Your task to perform on an android device: Open battery settings Image 0: 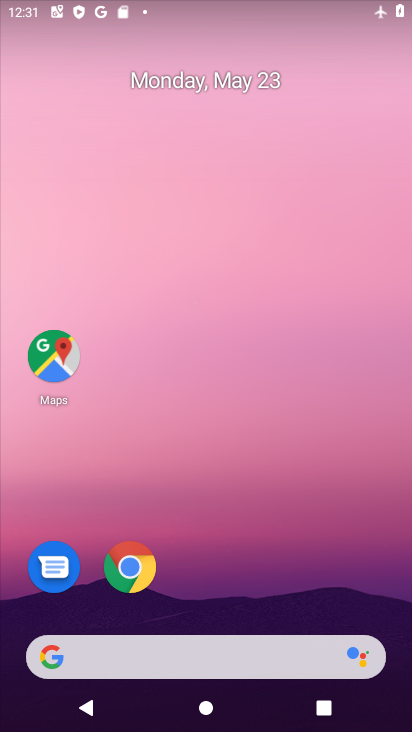
Step 0: drag from (263, 598) to (237, 21)
Your task to perform on an android device: Open battery settings Image 1: 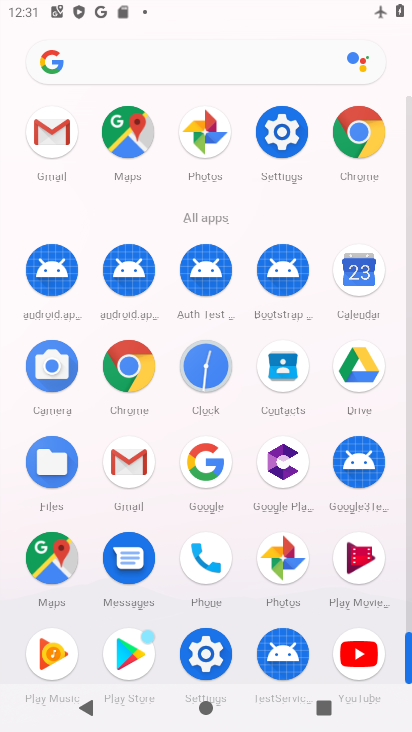
Step 1: click (292, 120)
Your task to perform on an android device: Open battery settings Image 2: 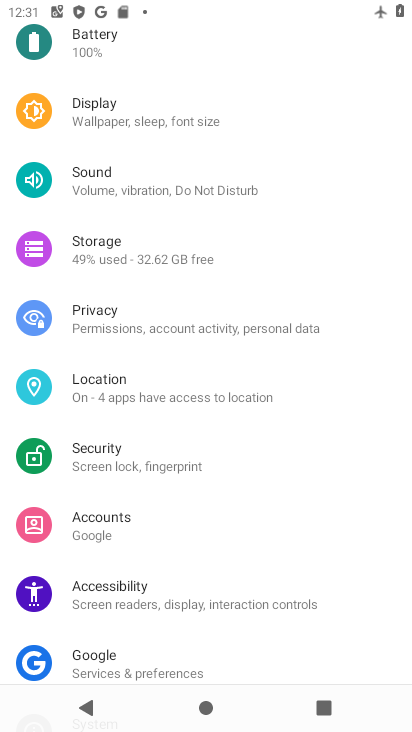
Step 2: click (189, 50)
Your task to perform on an android device: Open battery settings Image 3: 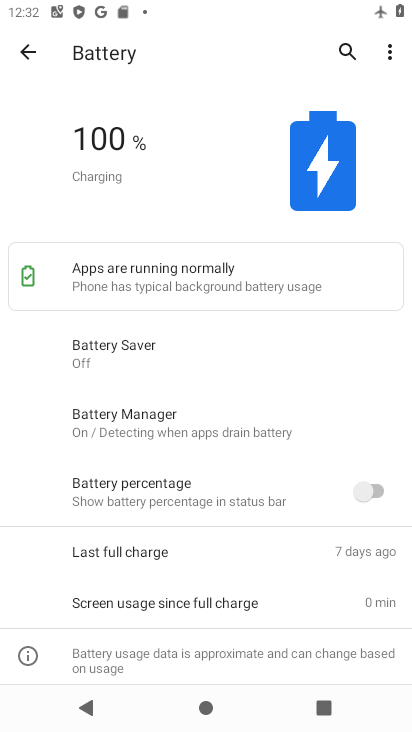
Step 3: task complete